Your task to perform on an android device: change the clock display to show seconds Image 0: 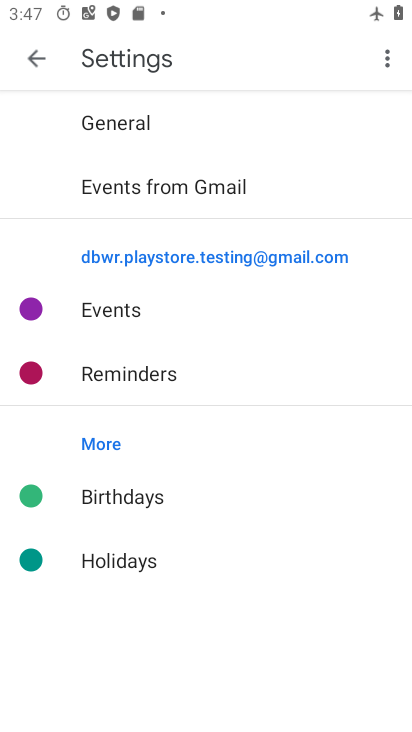
Step 0: press home button
Your task to perform on an android device: change the clock display to show seconds Image 1: 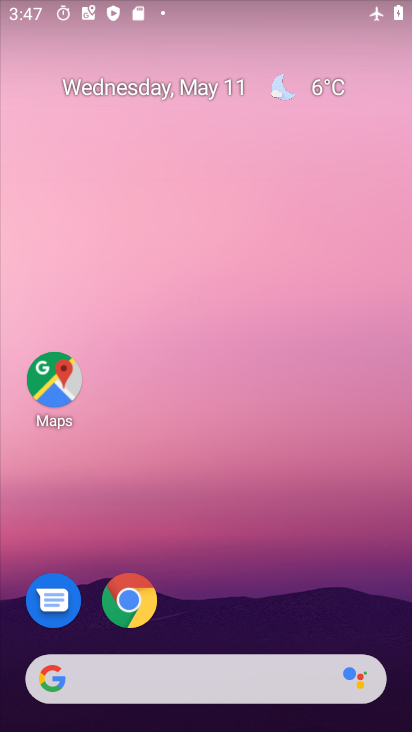
Step 1: drag from (359, 625) to (186, 186)
Your task to perform on an android device: change the clock display to show seconds Image 2: 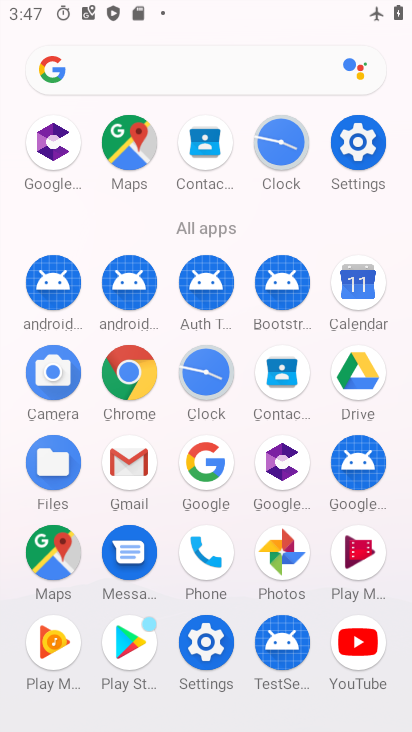
Step 2: click (346, 144)
Your task to perform on an android device: change the clock display to show seconds Image 3: 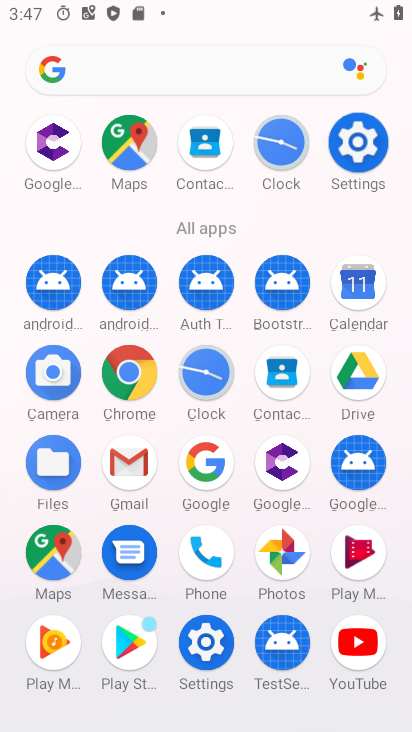
Step 3: click (346, 144)
Your task to perform on an android device: change the clock display to show seconds Image 4: 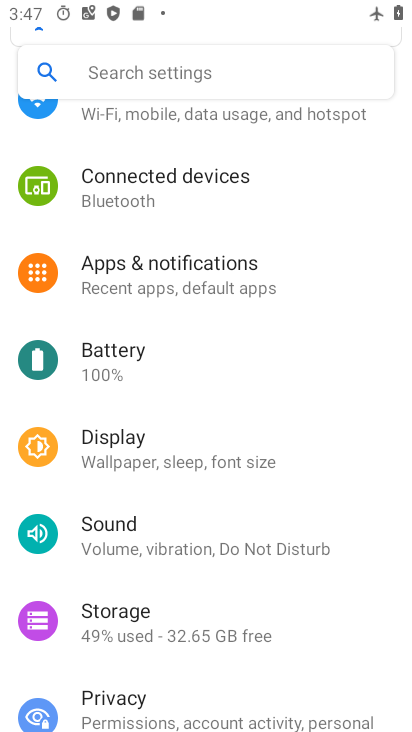
Step 4: click (288, 552)
Your task to perform on an android device: change the clock display to show seconds Image 5: 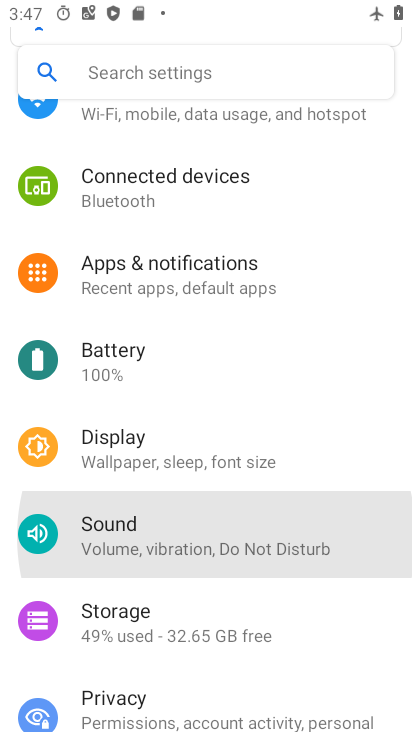
Step 5: drag from (235, 265) to (312, 591)
Your task to perform on an android device: change the clock display to show seconds Image 6: 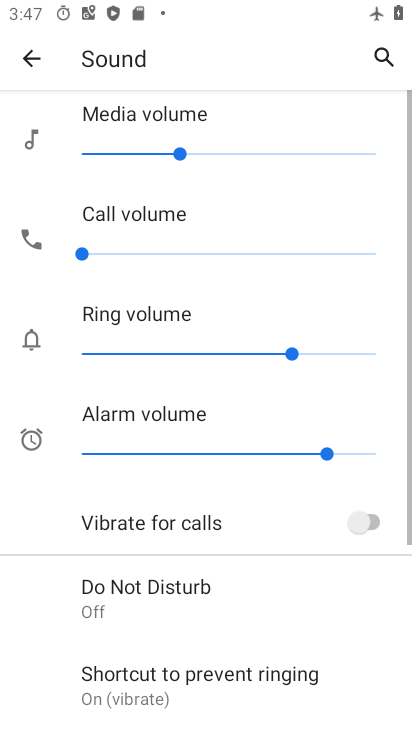
Step 6: drag from (261, 264) to (279, 485)
Your task to perform on an android device: change the clock display to show seconds Image 7: 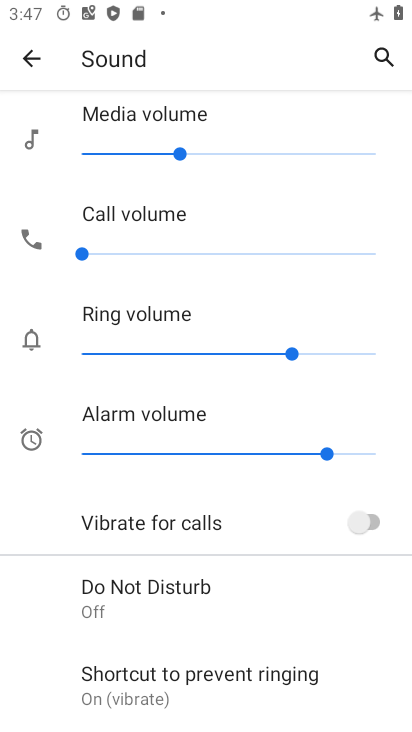
Step 7: click (24, 79)
Your task to perform on an android device: change the clock display to show seconds Image 8: 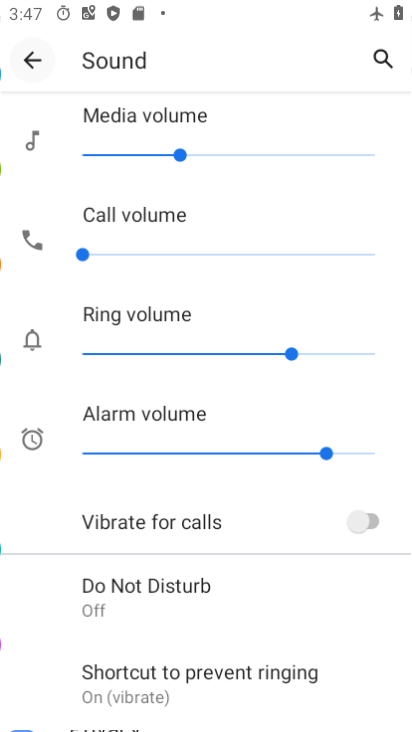
Step 8: click (26, 57)
Your task to perform on an android device: change the clock display to show seconds Image 9: 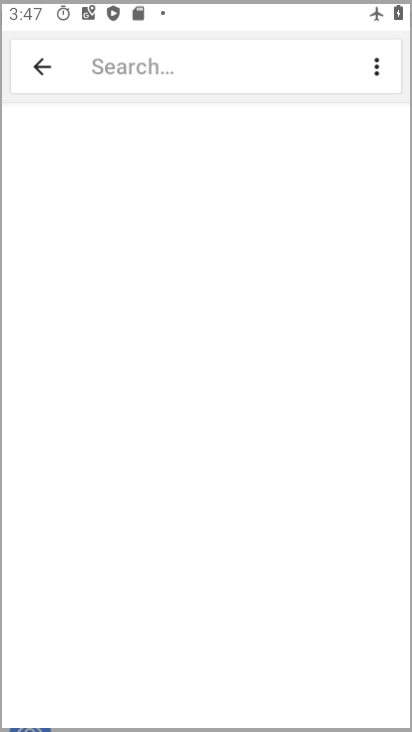
Step 9: click (21, 62)
Your task to perform on an android device: change the clock display to show seconds Image 10: 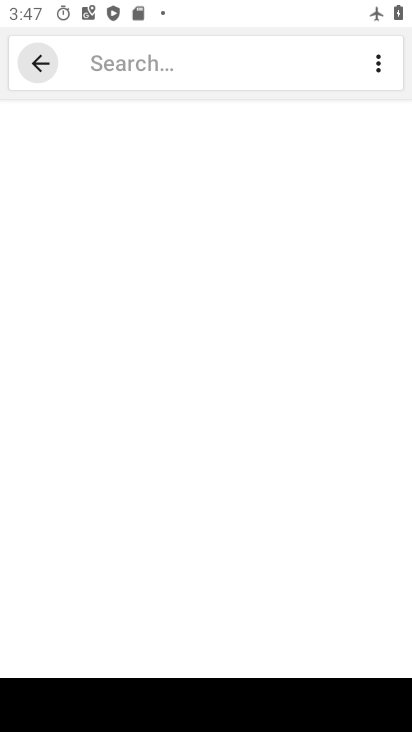
Step 10: drag from (196, 178) to (257, 520)
Your task to perform on an android device: change the clock display to show seconds Image 11: 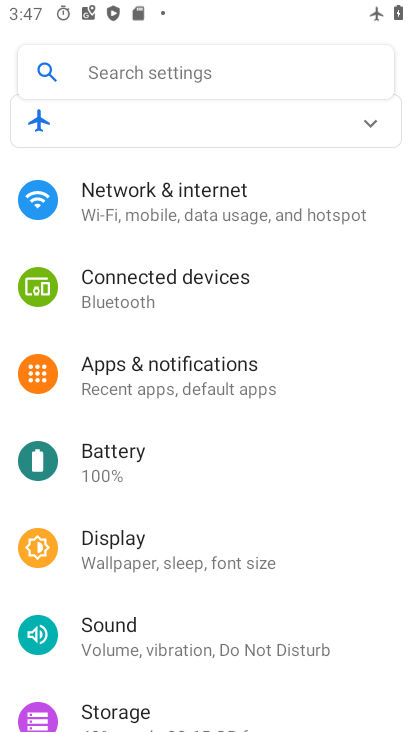
Step 11: click (203, 208)
Your task to perform on an android device: change the clock display to show seconds Image 12: 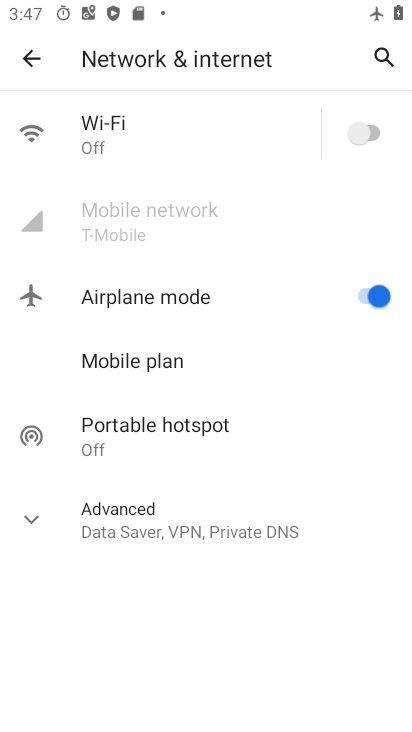
Step 12: click (363, 142)
Your task to perform on an android device: change the clock display to show seconds Image 13: 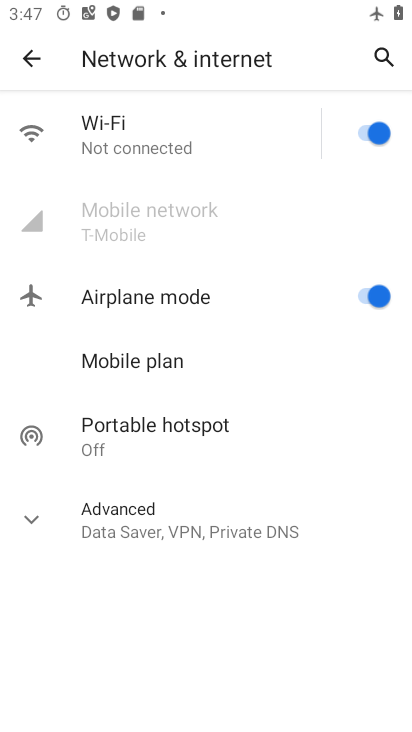
Step 13: click (368, 302)
Your task to perform on an android device: change the clock display to show seconds Image 14: 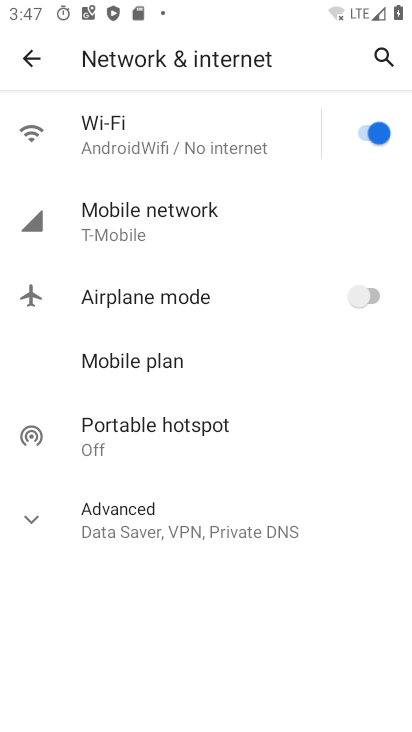
Step 14: press home button
Your task to perform on an android device: change the clock display to show seconds Image 15: 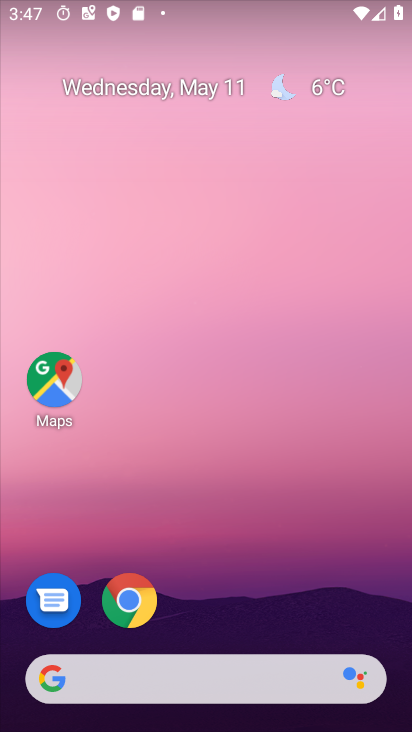
Step 15: drag from (342, 665) to (202, 174)
Your task to perform on an android device: change the clock display to show seconds Image 16: 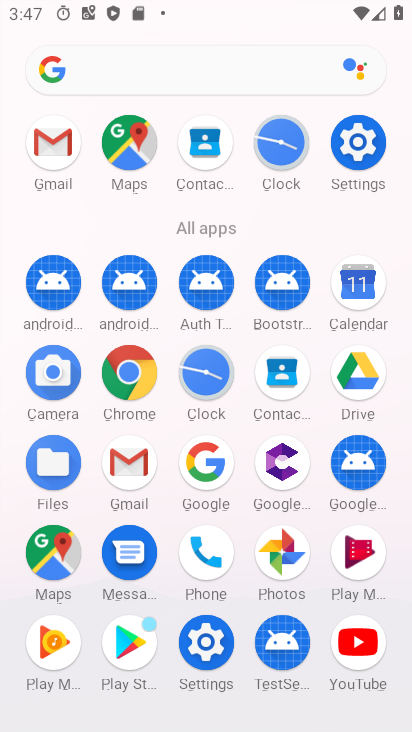
Step 16: click (270, 158)
Your task to perform on an android device: change the clock display to show seconds Image 17: 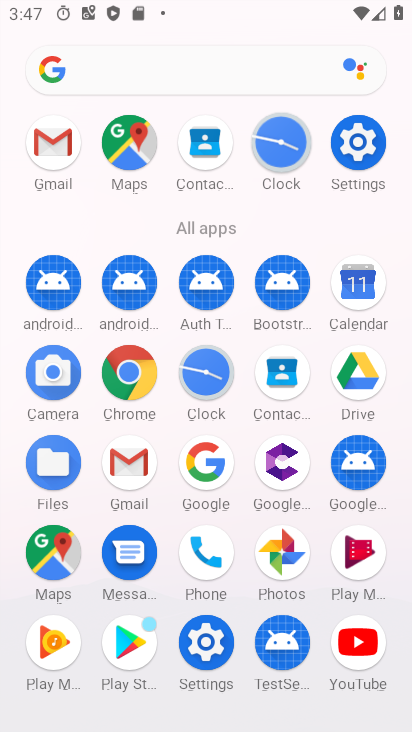
Step 17: click (274, 147)
Your task to perform on an android device: change the clock display to show seconds Image 18: 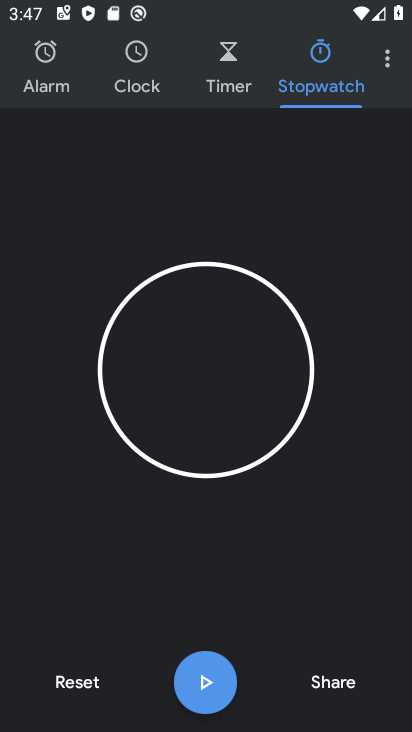
Step 18: click (389, 63)
Your task to perform on an android device: change the clock display to show seconds Image 19: 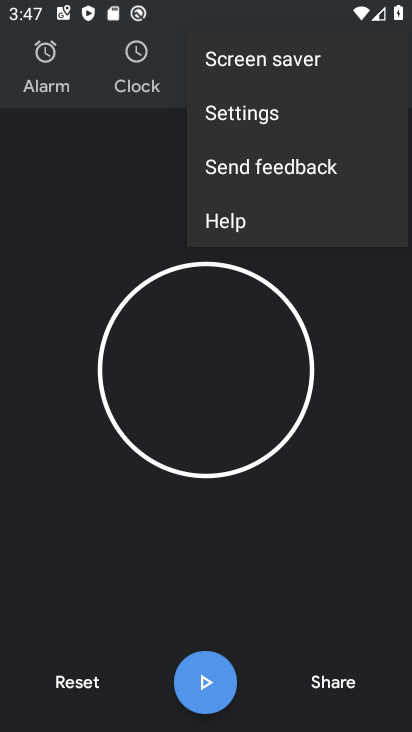
Step 19: click (264, 120)
Your task to perform on an android device: change the clock display to show seconds Image 20: 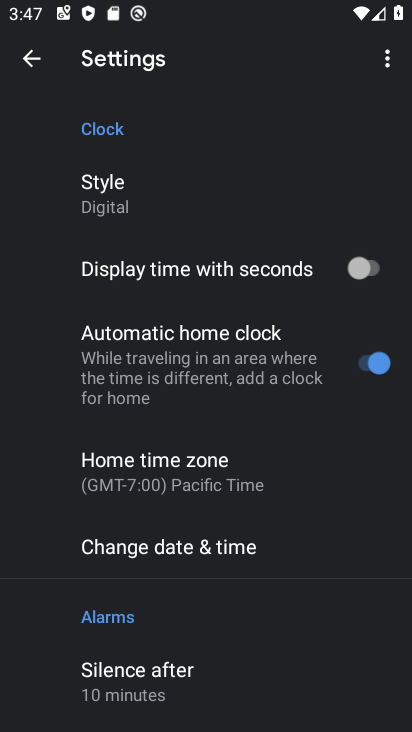
Step 20: click (354, 269)
Your task to perform on an android device: change the clock display to show seconds Image 21: 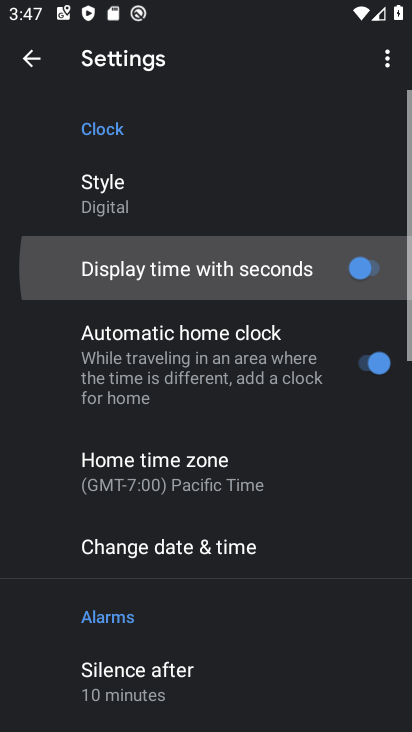
Step 21: click (355, 270)
Your task to perform on an android device: change the clock display to show seconds Image 22: 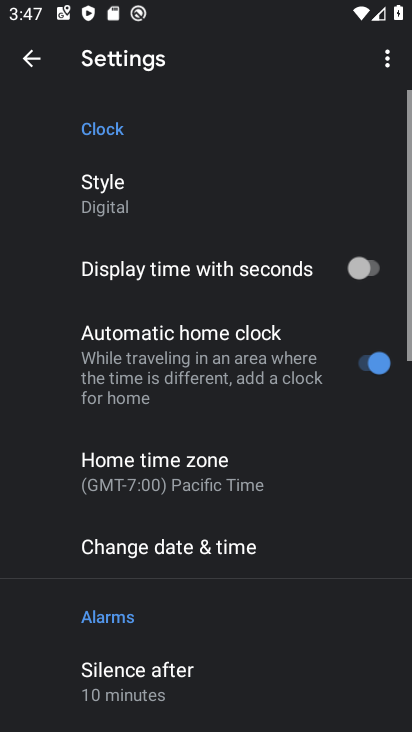
Step 22: click (353, 265)
Your task to perform on an android device: change the clock display to show seconds Image 23: 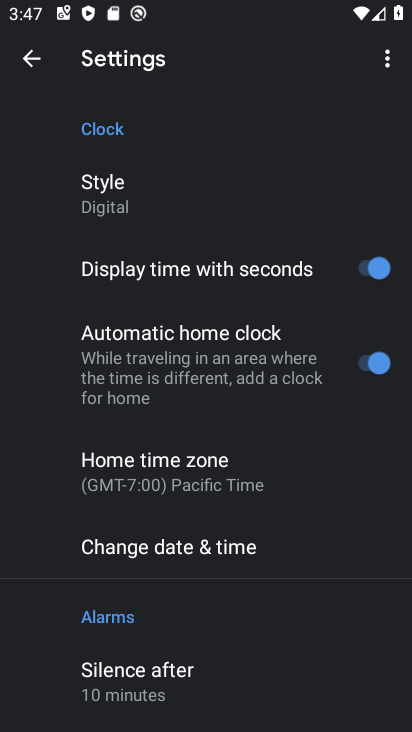
Step 23: task complete